Your task to perform on an android device: Go to eBay Image 0: 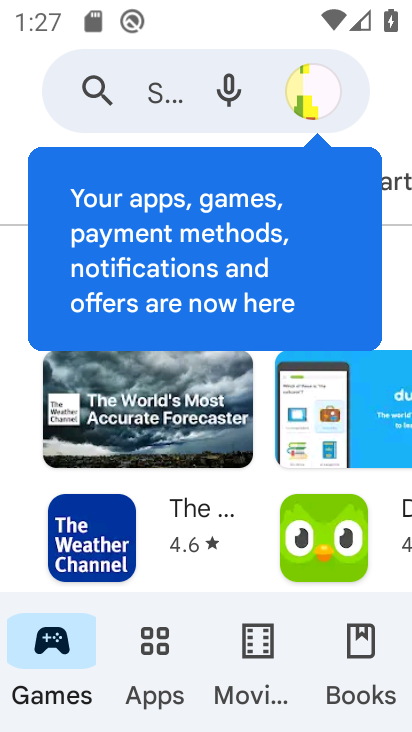
Step 0: press home button
Your task to perform on an android device: Go to eBay Image 1: 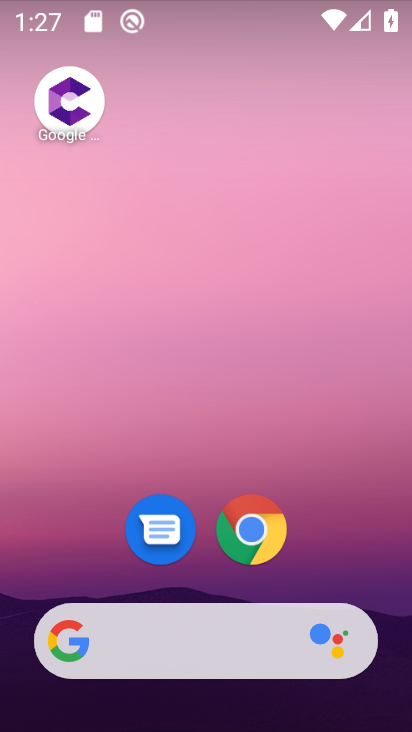
Step 1: click (250, 539)
Your task to perform on an android device: Go to eBay Image 2: 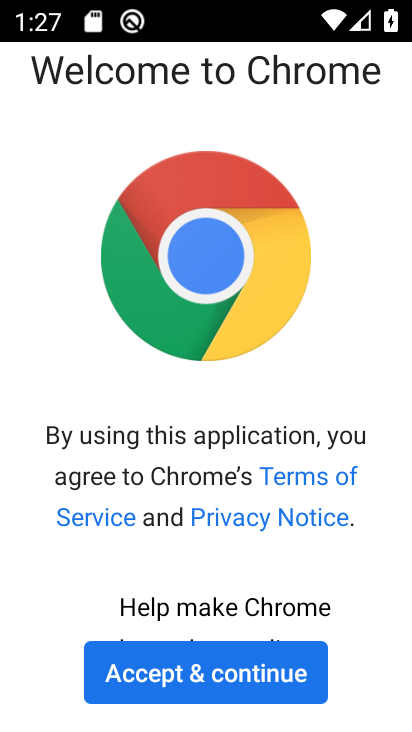
Step 2: click (196, 666)
Your task to perform on an android device: Go to eBay Image 3: 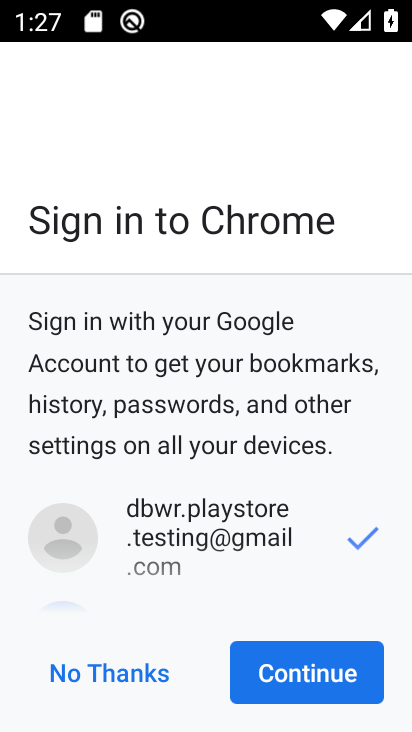
Step 3: click (277, 686)
Your task to perform on an android device: Go to eBay Image 4: 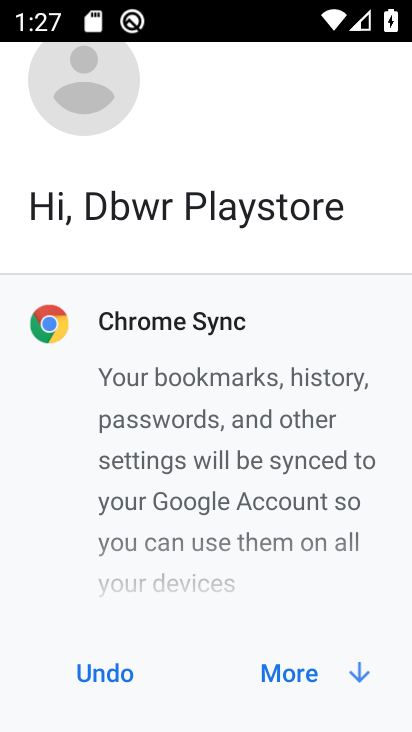
Step 4: click (297, 671)
Your task to perform on an android device: Go to eBay Image 5: 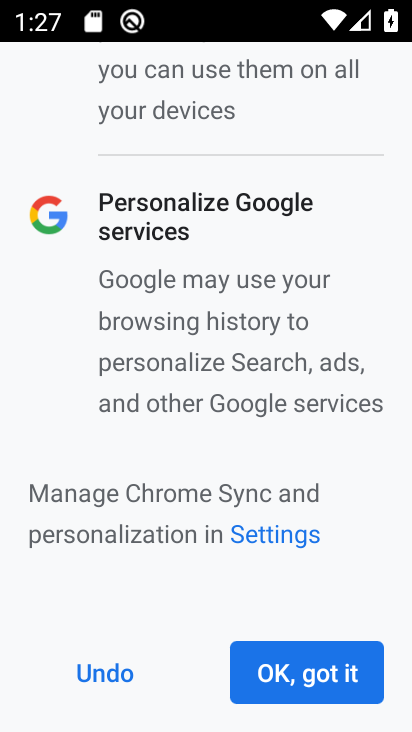
Step 5: click (297, 668)
Your task to perform on an android device: Go to eBay Image 6: 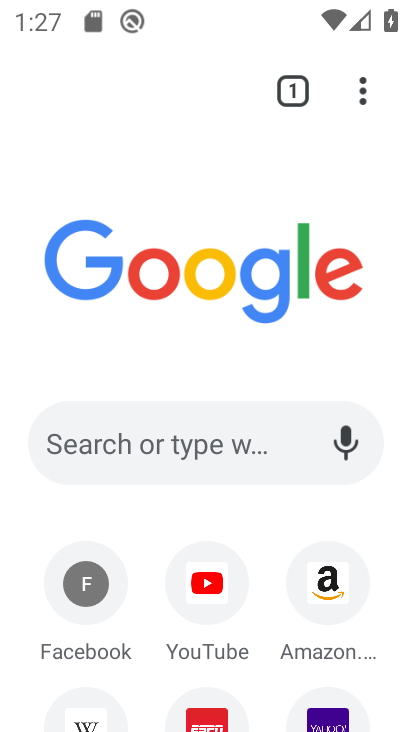
Step 6: click (195, 661)
Your task to perform on an android device: Go to eBay Image 7: 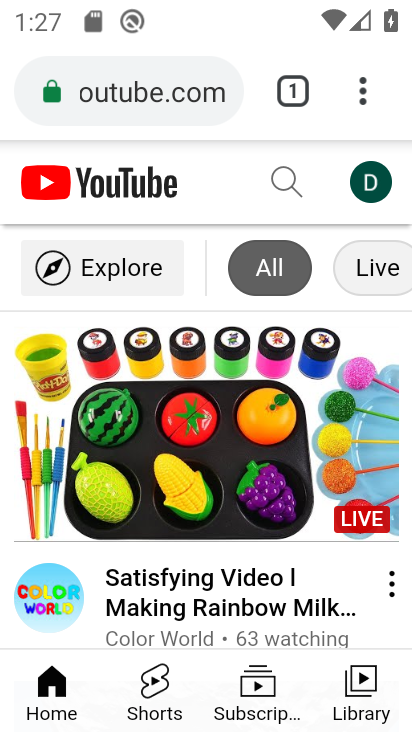
Step 7: click (151, 102)
Your task to perform on an android device: Go to eBay Image 8: 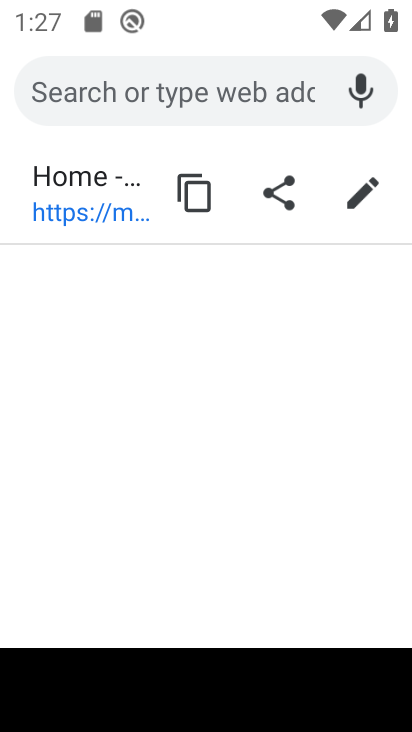
Step 8: type "ebay.com"
Your task to perform on an android device: Go to eBay Image 9: 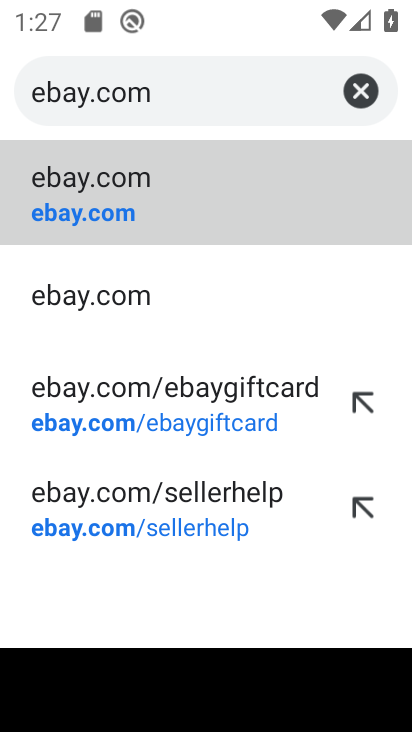
Step 9: click (110, 195)
Your task to perform on an android device: Go to eBay Image 10: 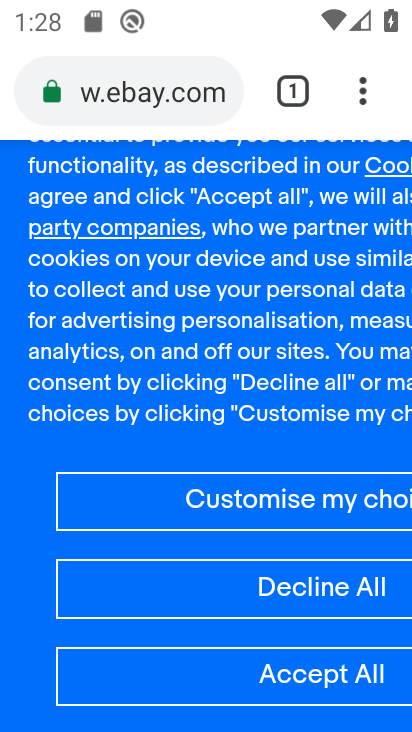
Step 10: task complete